Your task to perform on an android device: Open Youtube and go to the subscriptions tab Image 0: 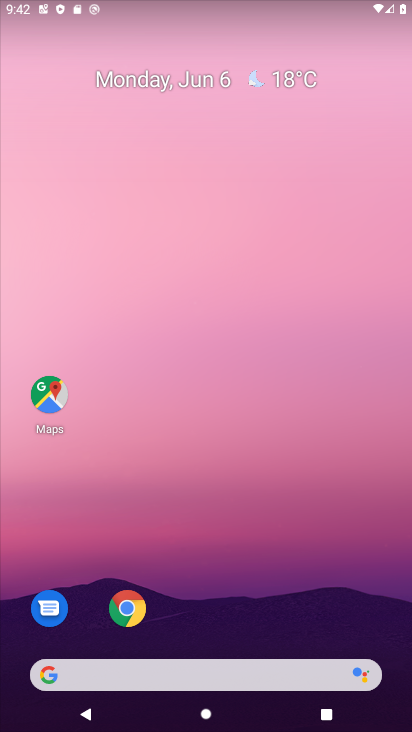
Step 0: drag from (250, 601) to (268, 3)
Your task to perform on an android device: Open Youtube and go to the subscriptions tab Image 1: 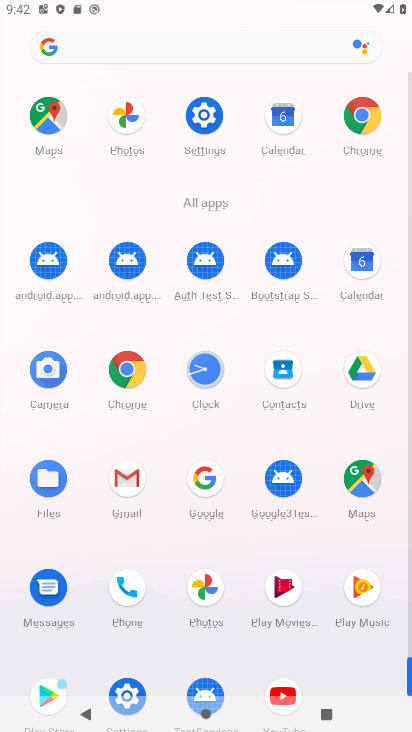
Step 1: drag from (250, 218) to (251, 115)
Your task to perform on an android device: Open Youtube and go to the subscriptions tab Image 2: 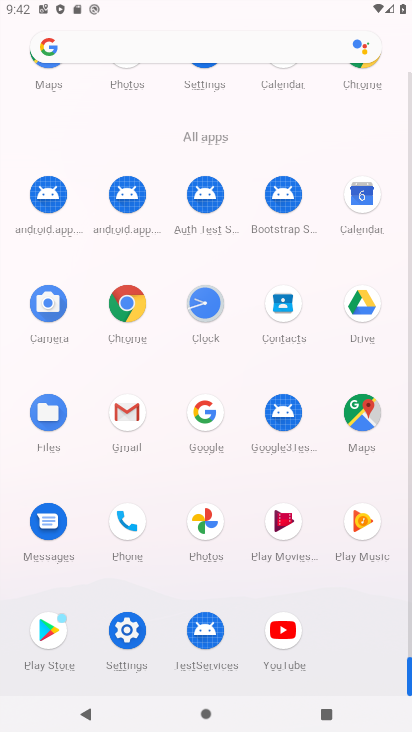
Step 2: click (283, 631)
Your task to perform on an android device: Open Youtube and go to the subscriptions tab Image 3: 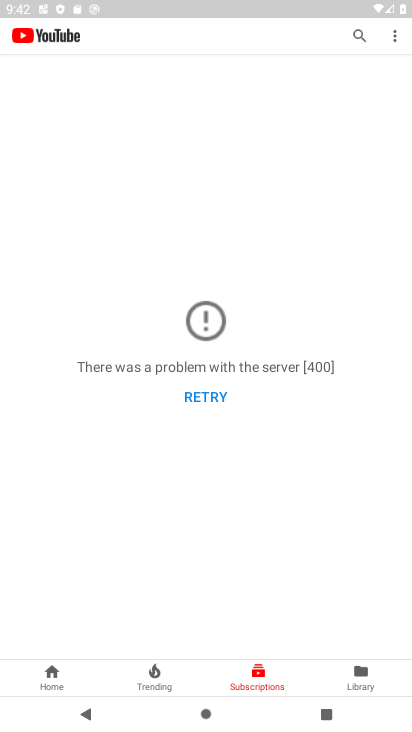
Step 3: click (251, 677)
Your task to perform on an android device: Open Youtube and go to the subscriptions tab Image 4: 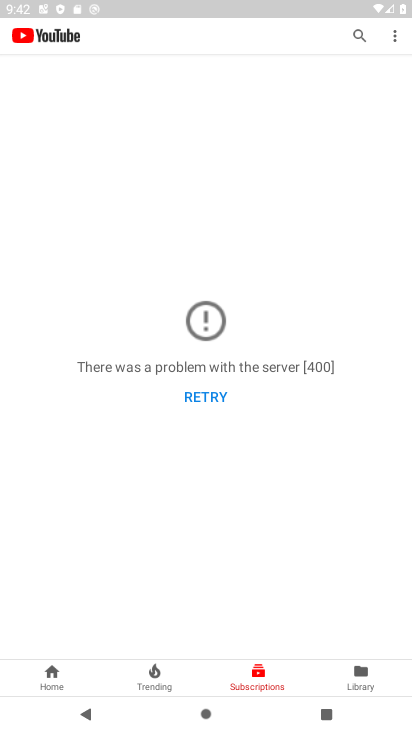
Step 4: task complete